Your task to perform on an android device: Set the phone to "Do not disturb". Image 0: 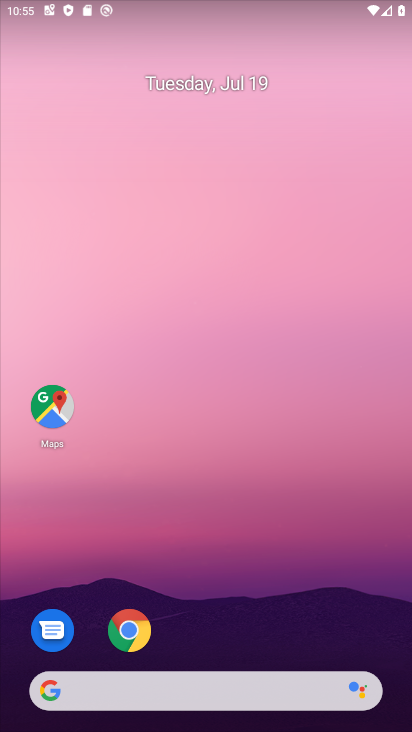
Step 0: drag from (225, 679) to (246, 164)
Your task to perform on an android device: Set the phone to "Do not disturb". Image 1: 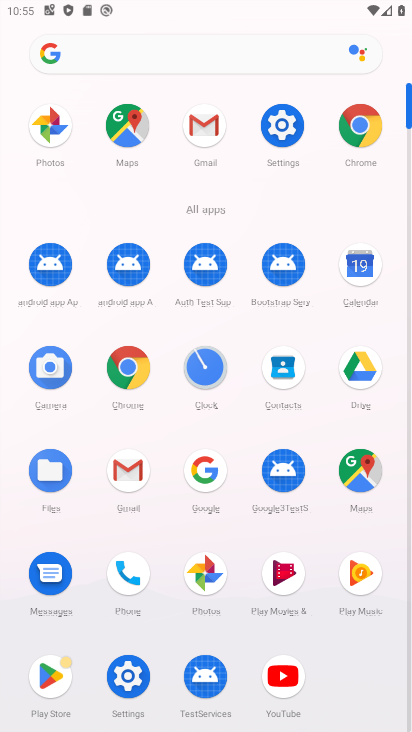
Step 1: click (283, 133)
Your task to perform on an android device: Set the phone to "Do not disturb". Image 2: 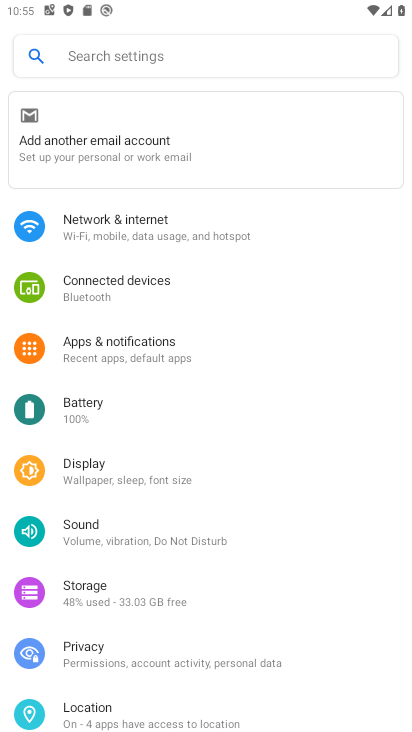
Step 2: click (100, 515)
Your task to perform on an android device: Set the phone to "Do not disturb". Image 3: 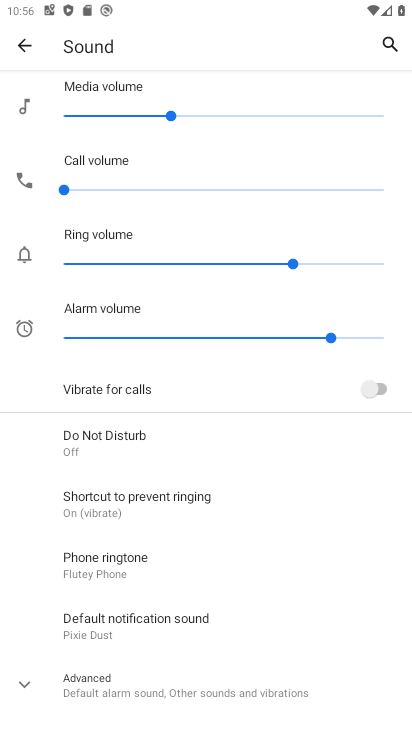
Step 3: click (150, 443)
Your task to perform on an android device: Set the phone to "Do not disturb". Image 4: 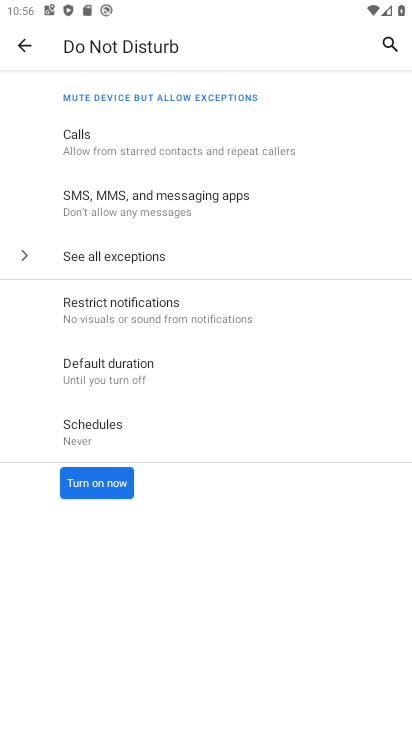
Step 4: click (116, 473)
Your task to perform on an android device: Set the phone to "Do not disturb". Image 5: 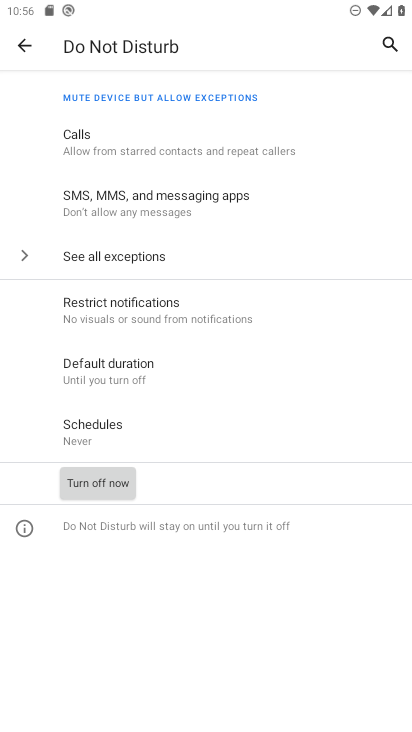
Step 5: task complete